Your task to perform on an android device: Show the shopping cart on ebay.com. Add logitech g pro to the cart on ebay.com, then select checkout. Image 0: 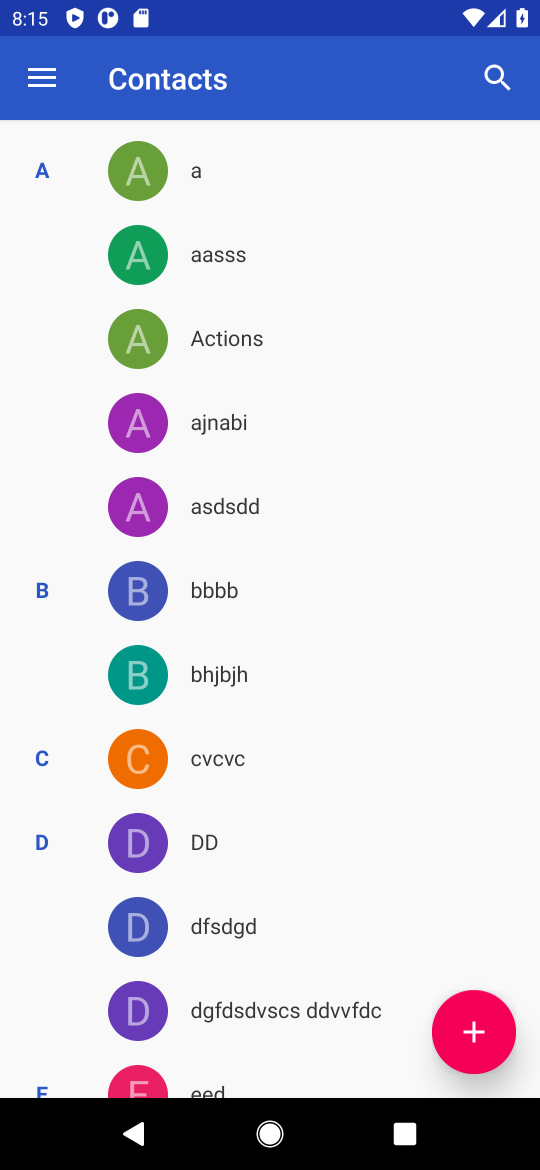
Step 0: press home button
Your task to perform on an android device: Show the shopping cart on ebay.com. Add logitech g pro to the cart on ebay.com, then select checkout. Image 1: 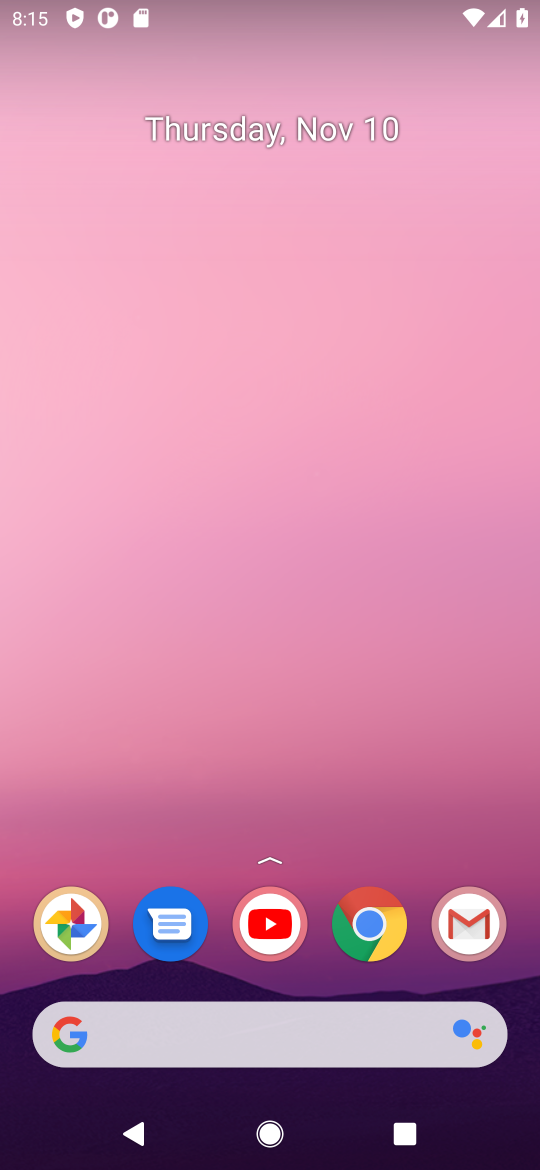
Step 1: click (380, 948)
Your task to perform on an android device: Show the shopping cart on ebay.com. Add logitech g pro to the cart on ebay.com, then select checkout. Image 2: 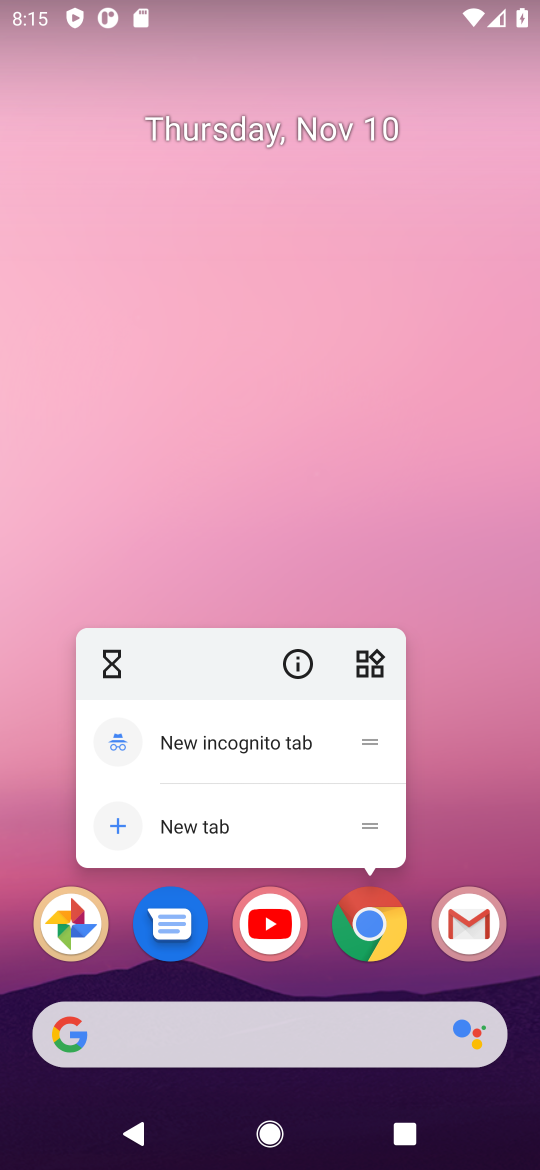
Step 2: click (378, 931)
Your task to perform on an android device: Show the shopping cart on ebay.com. Add logitech g pro to the cart on ebay.com, then select checkout. Image 3: 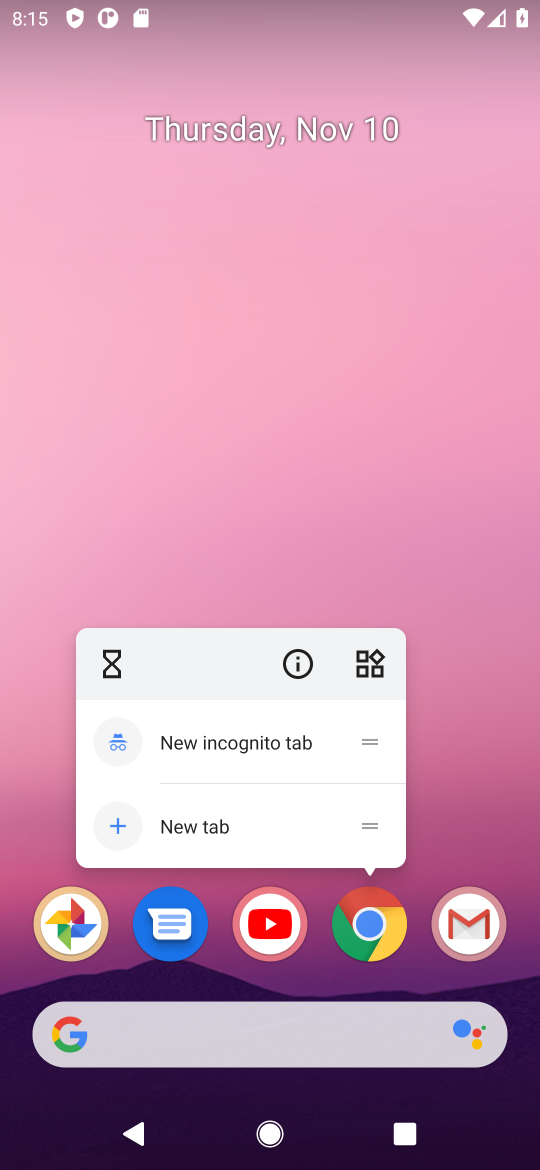
Step 3: click (366, 924)
Your task to perform on an android device: Show the shopping cart on ebay.com. Add logitech g pro to the cart on ebay.com, then select checkout. Image 4: 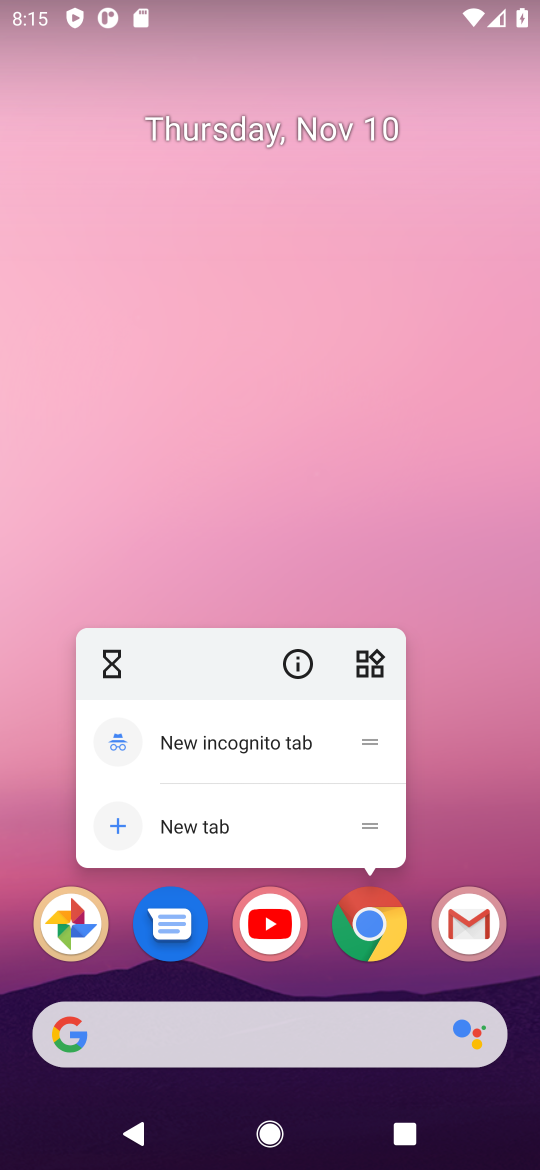
Step 4: click (373, 914)
Your task to perform on an android device: Show the shopping cart on ebay.com. Add logitech g pro to the cart on ebay.com, then select checkout. Image 5: 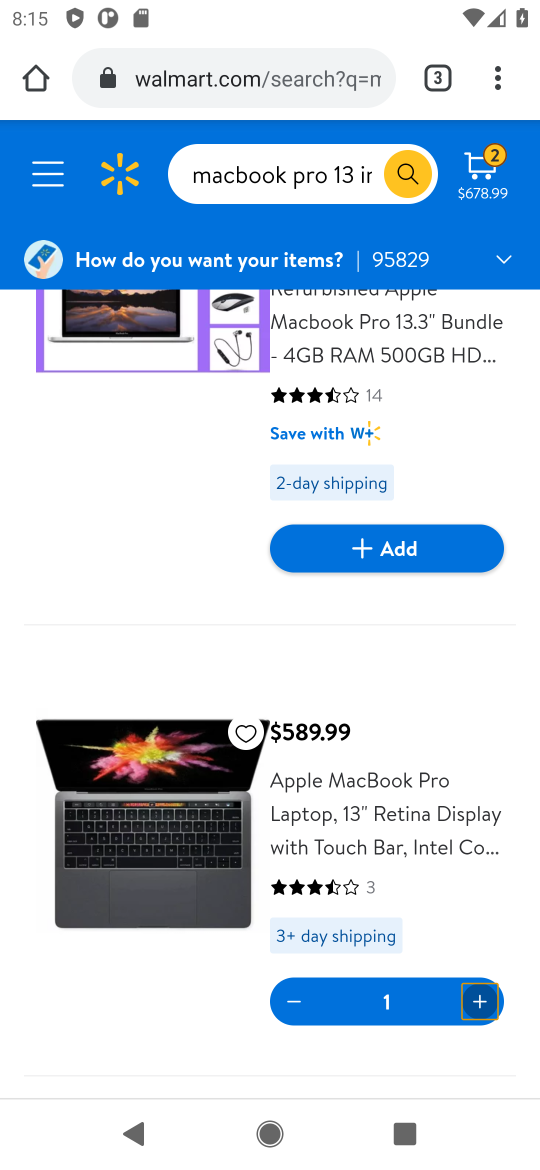
Step 5: click (249, 86)
Your task to perform on an android device: Show the shopping cart on ebay.com. Add logitech g pro to the cart on ebay.com, then select checkout. Image 6: 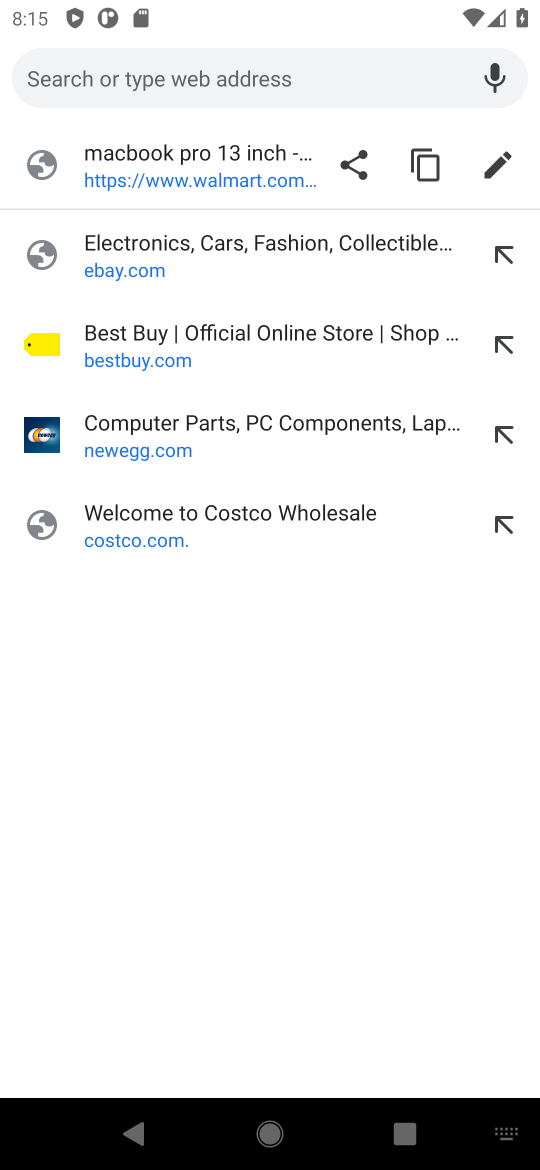
Step 6: click (111, 275)
Your task to perform on an android device: Show the shopping cart on ebay.com. Add logitech g pro to the cart on ebay.com, then select checkout. Image 7: 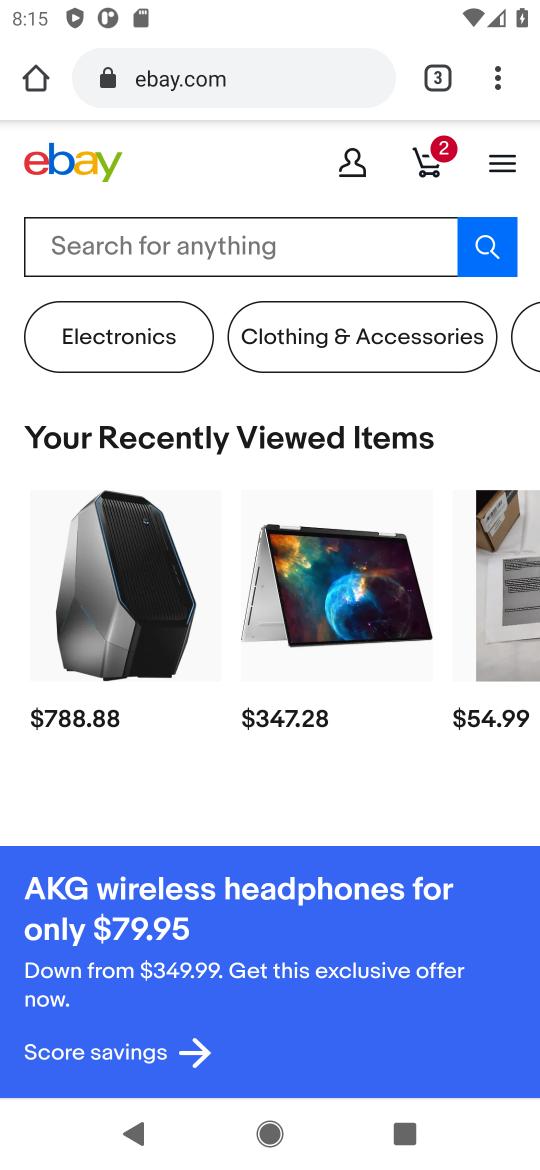
Step 7: click (427, 157)
Your task to perform on an android device: Show the shopping cart on ebay.com. Add logitech g pro to the cart on ebay.com, then select checkout. Image 8: 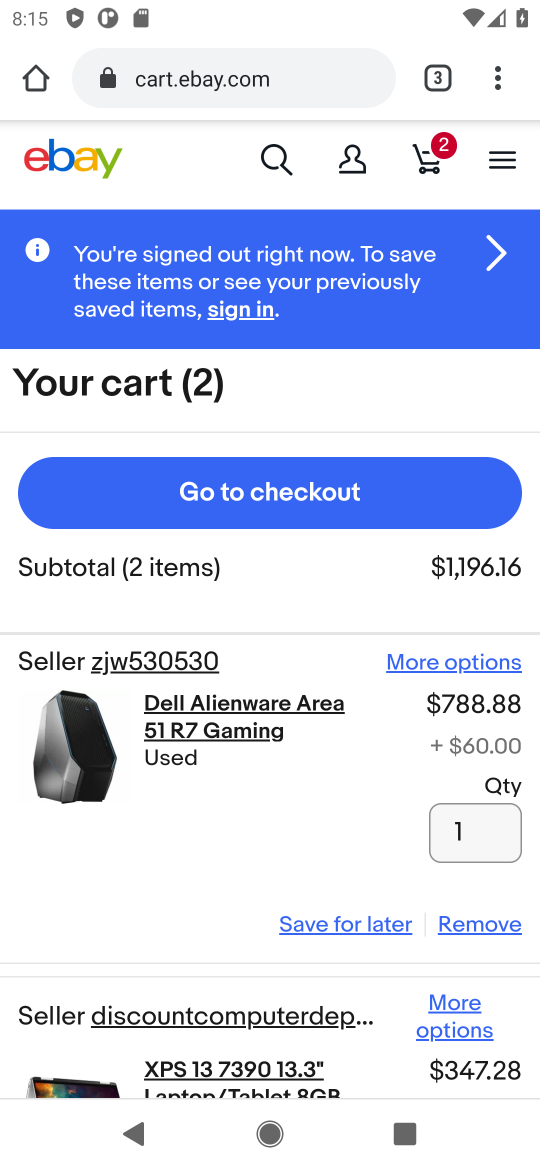
Step 8: drag from (221, 872) to (247, 548)
Your task to perform on an android device: Show the shopping cart on ebay.com. Add logitech g pro to the cart on ebay.com, then select checkout. Image 9: 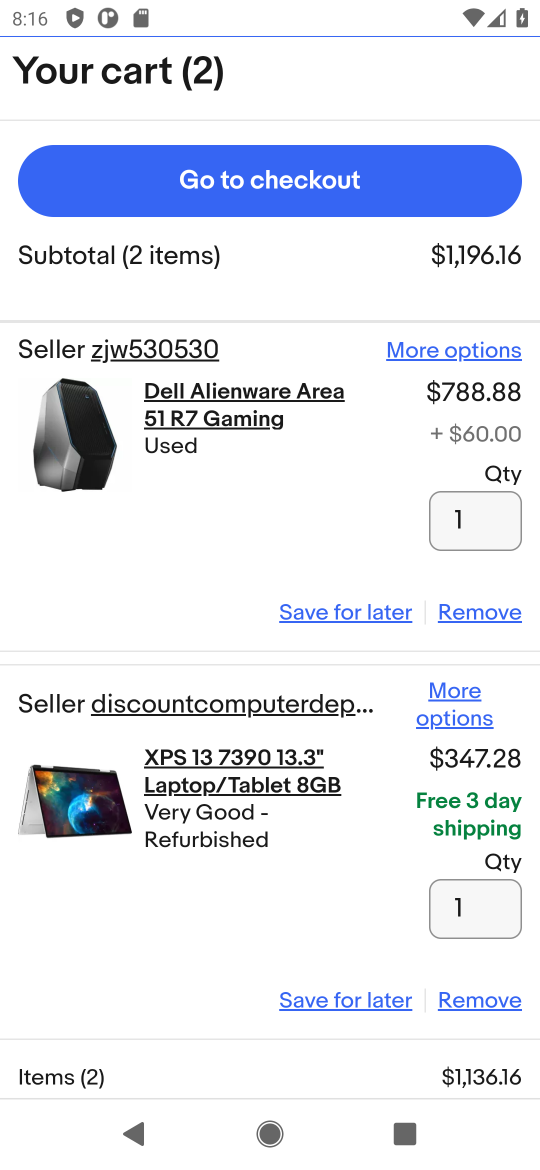
Step 9: drag from (243, 356) to (252, 946)
Your task to perform on an android device: Show the shopping cart on ebay.com. Add logitech g pro to the cart on ebay.com, then select checkout. Image 10: 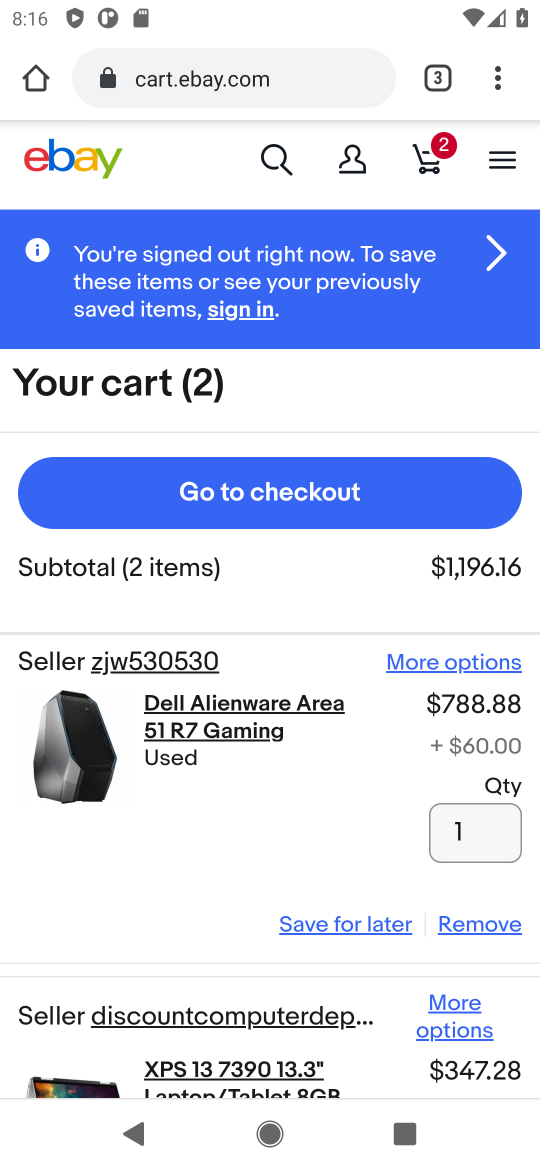
Step 10: click (259, 162)
Your task to perform on an android device: Show the shopping cart on ebay.com. Add logitech g pro to the cart on ebay.com, then select checkout. Image 11: 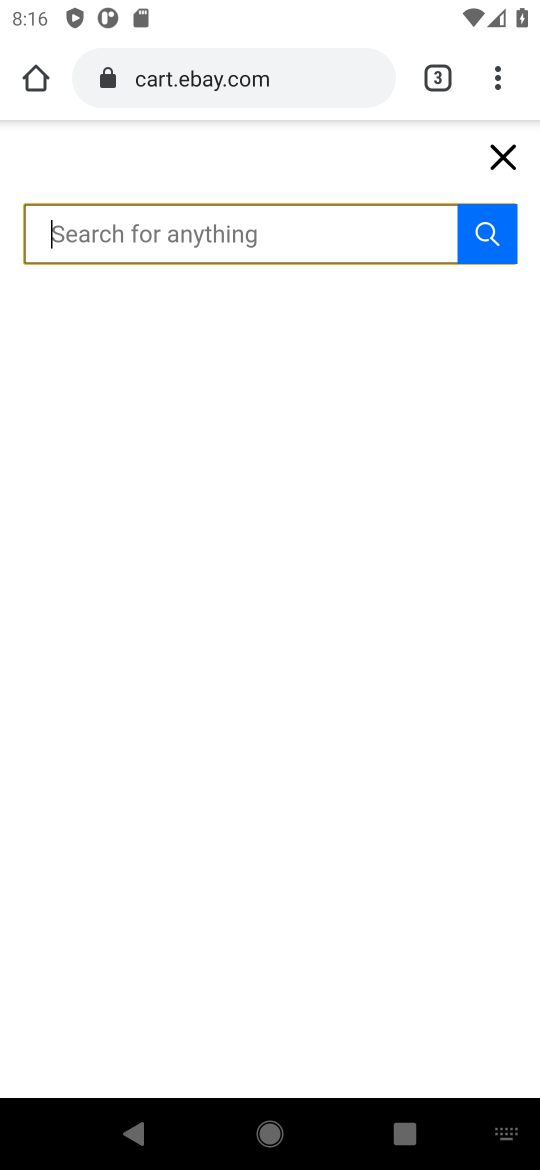
Step 11: type "logitech g pro"
Your task to perform on an android device: Show the shopping cart on ebay.com. Add logitech g pro to the cart on ebay.com, then select checkout. Image 12: 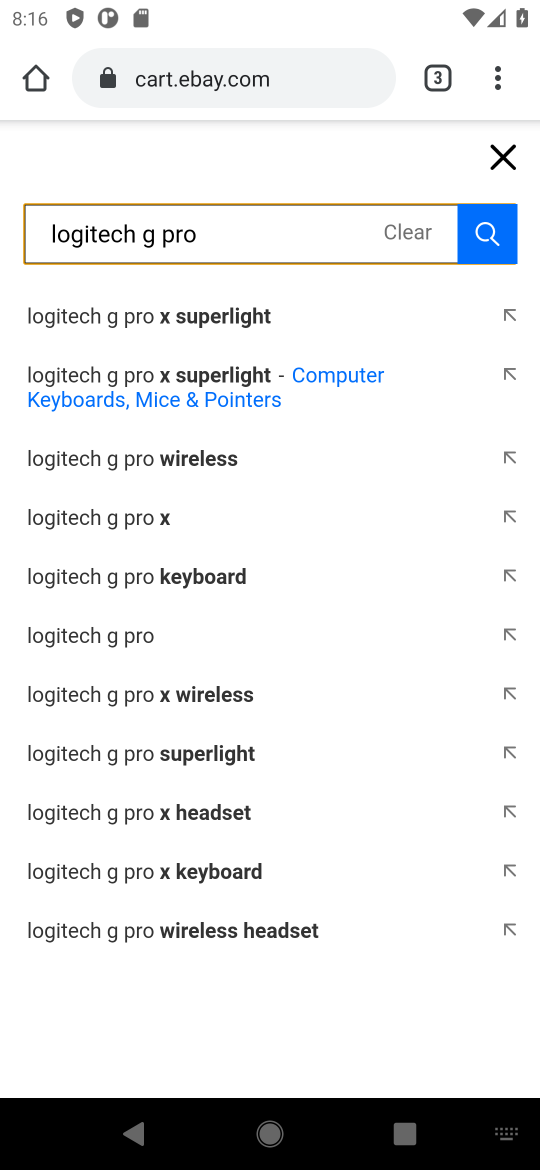
Step 12: click (93, 642)
Your task to perform on an android device: Show the shopping cart on ebay.com. Add logitech g pro to the cart on ebay.com, then select checkout. Image 13: 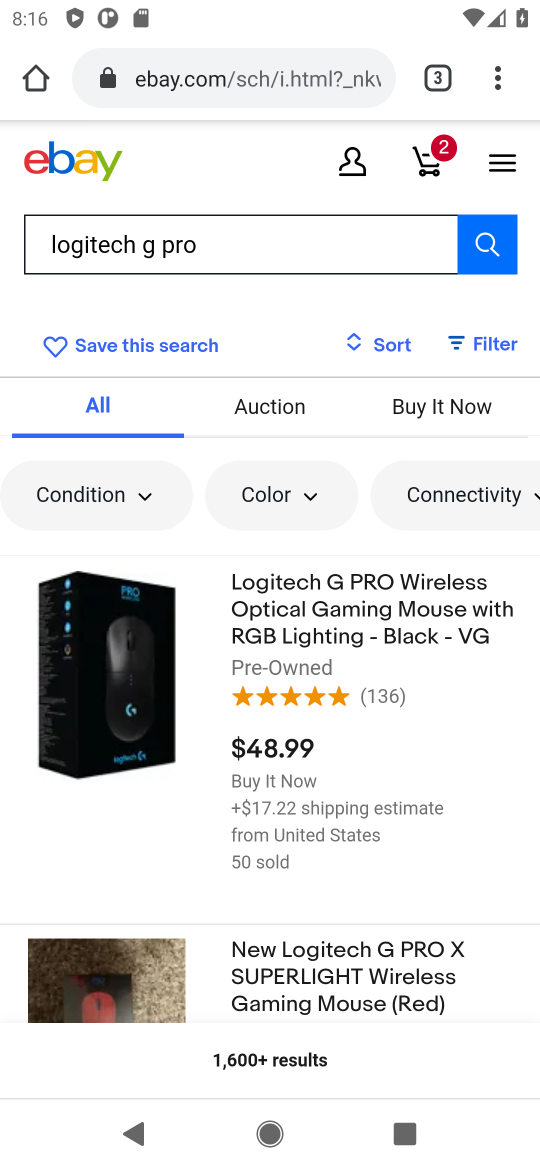
Step 13: click (96, 720)
Your task to perform on an android device: Show the shopping cart on ebay.com. Add logitech g pro to the cart on ebay.com, then select checkout. Image 14: 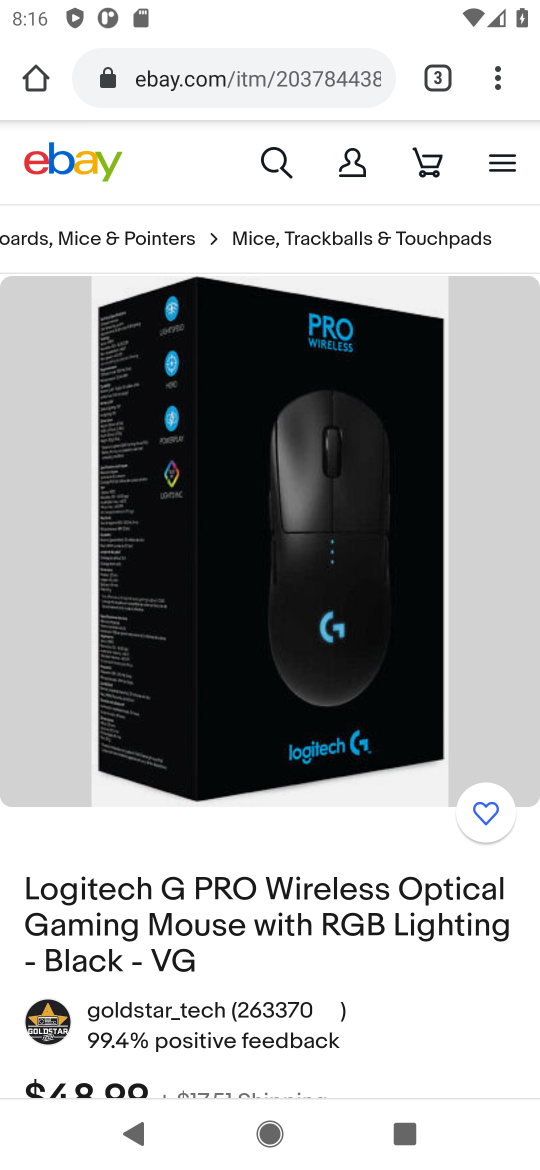
Step 14: drag from (287, 713) to (244, 245)
Your task to perform on an android device: Show the shopping cart on ebay.com. Add logitech g pro to the cart on ebay.com, then select checkout. Image 15: 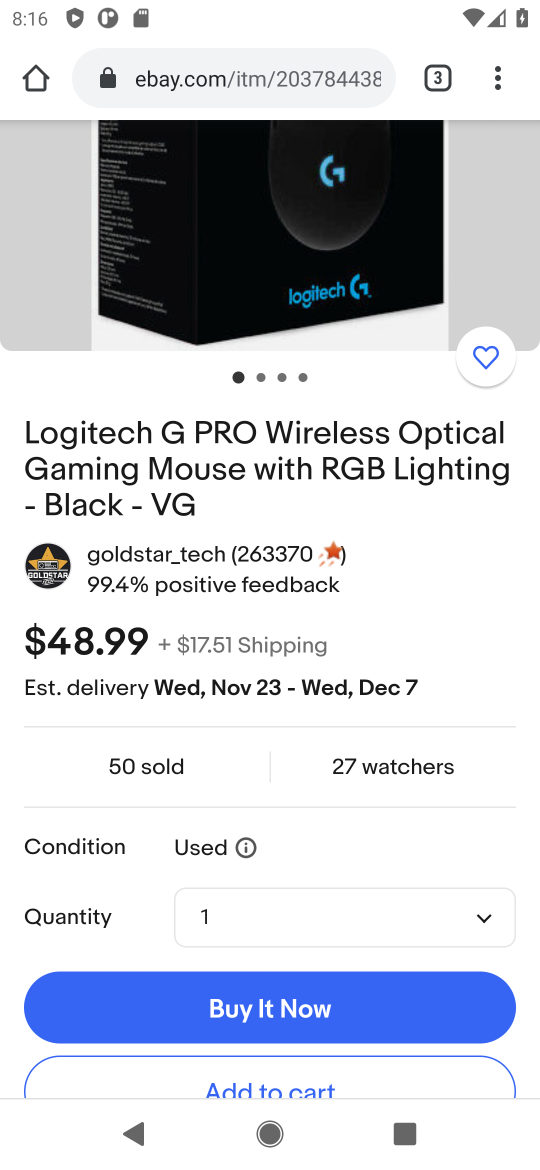
Step 15: drag from (387, 959) to (365, 476)
Your task to perform on an android device: Show the shopping cart on ebay.com. Add logitech g pro to the cart on ebay.com, then select checkout. Image 16: 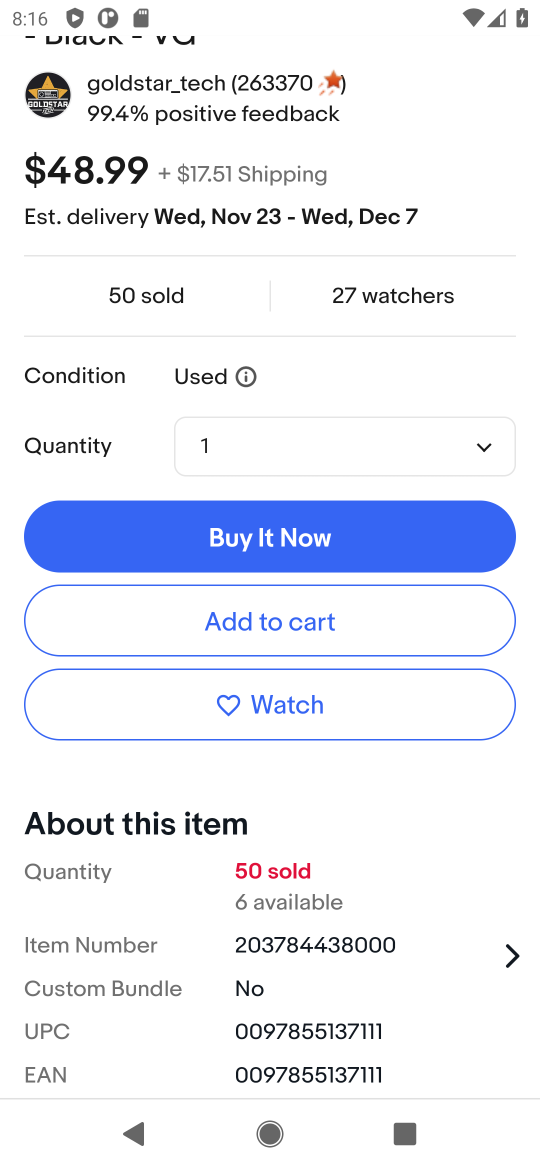
Step 16: click (307, 626)
Your task to perform on an android device: Show the shopping cart on ebay.com. Add logitech g pro to the cart on ebay.com, then select checkout. Image 17: 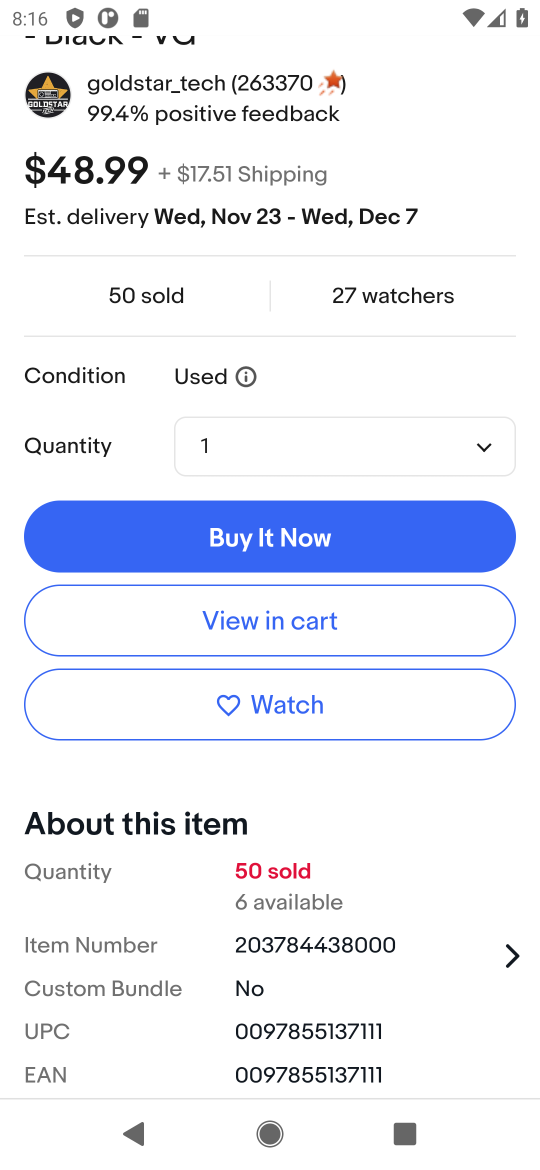
Step 17: click (307, 626)
Your task to perform on an android device: Show the shopping cart on ebay.com. Add logitech g pro to the cart on ebay.com, then select checkout. Image 18: 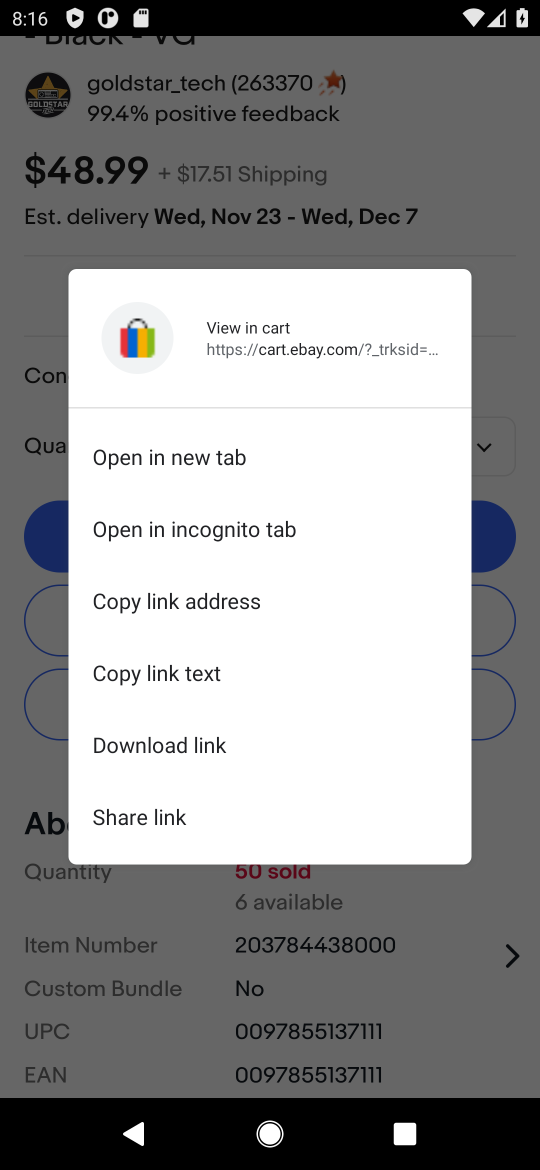
Step 18: click (522, 592)
Your task to perform on an android device: Show the shopping cart on ebay.com. Add logitech g pro to the cart on ebay.com, then select checkout. Image 19: 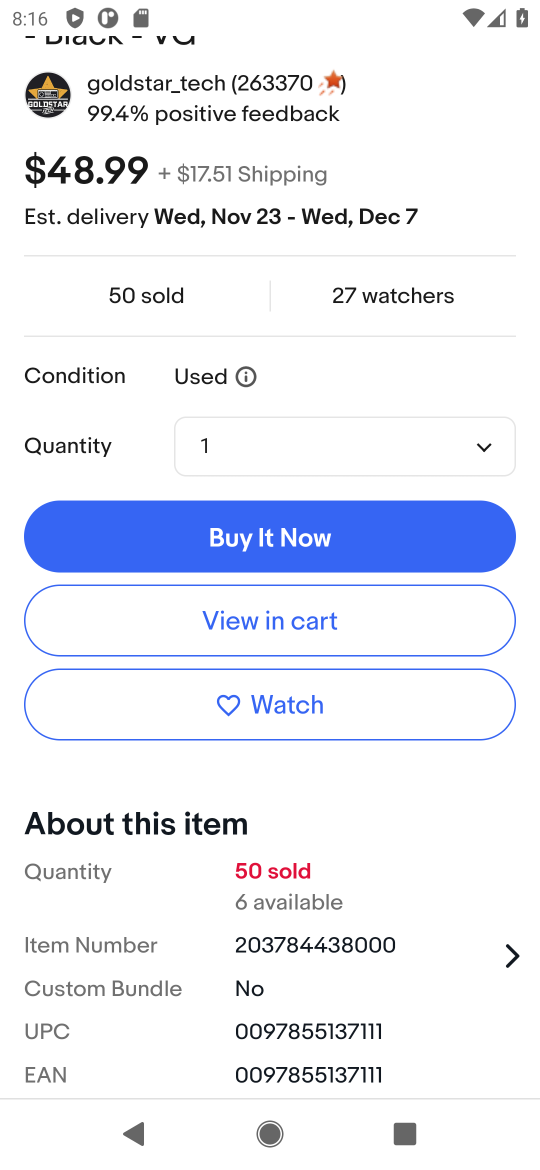
Step 19: click (222, 630)
Your task to perform on an android device: Show the shopping cart on ebay.com. Add logitech g pro to the cart on ebay.com, then select checkout. Image 20: 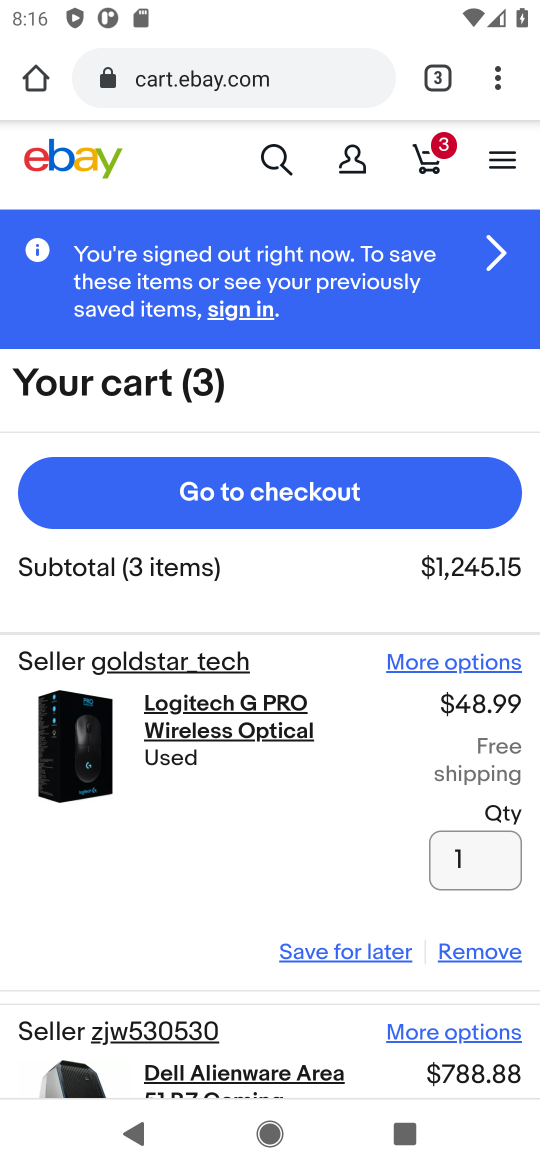
Step 20: click (259, 499)
Your task to perform on an android device: Show the shopping cart on ebay.com. Add logitech g pro to the cart on ebay.com, then select checkout. Image 21: 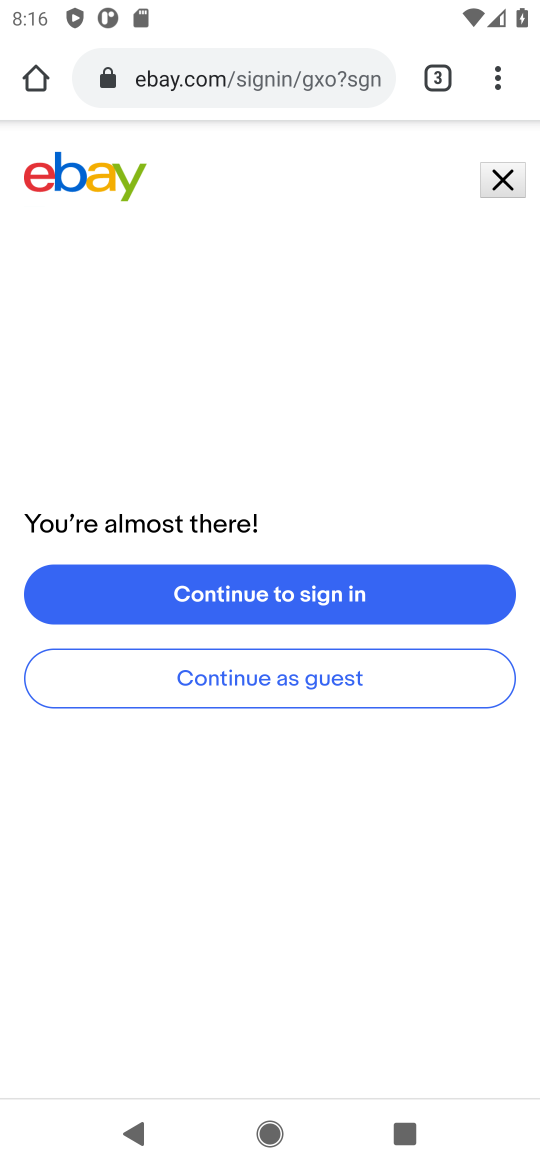
Step 21: task complete